Your task to perform on an android device: turn off sleep mode Image 0: 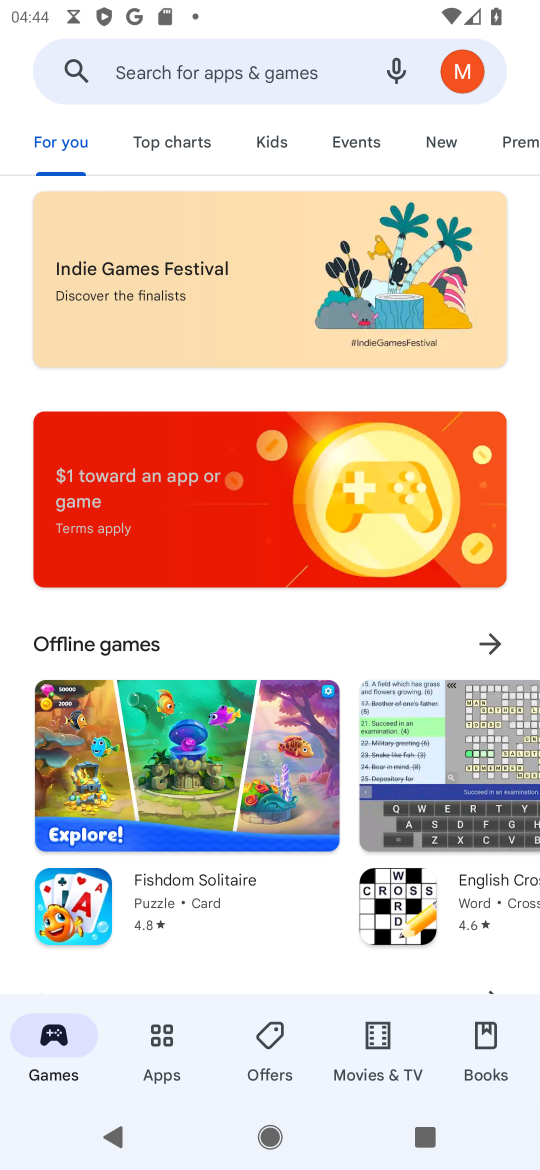
Step 0: press home button
Your task to perform on an android device: turn off sleep mode Image 1: 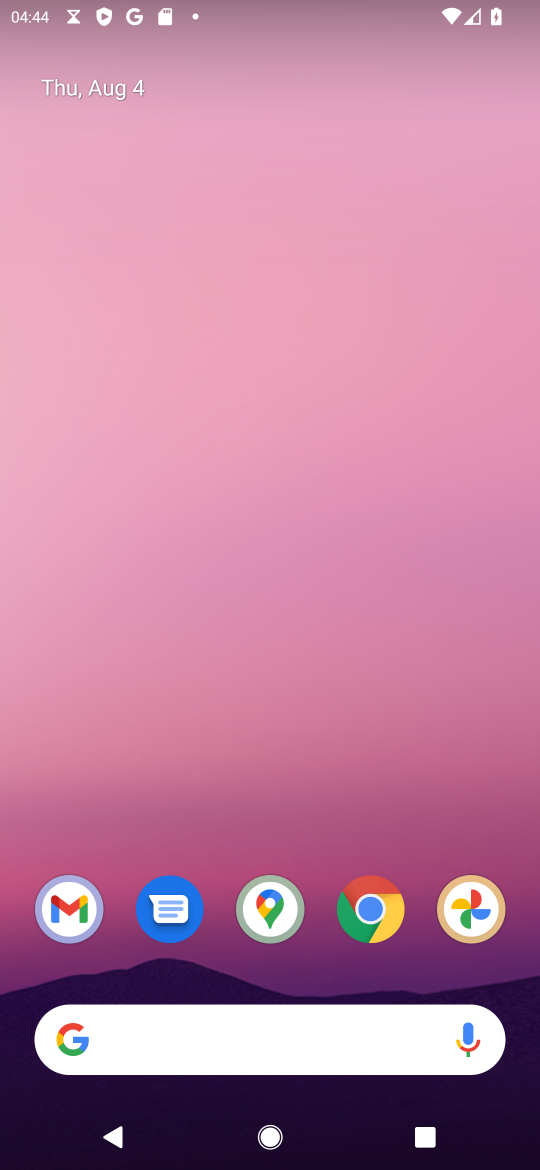
Step 1: drag from (159, 1035) to (530, 79)
Your task to perform on an android device: turn off sleep mode Image 2: 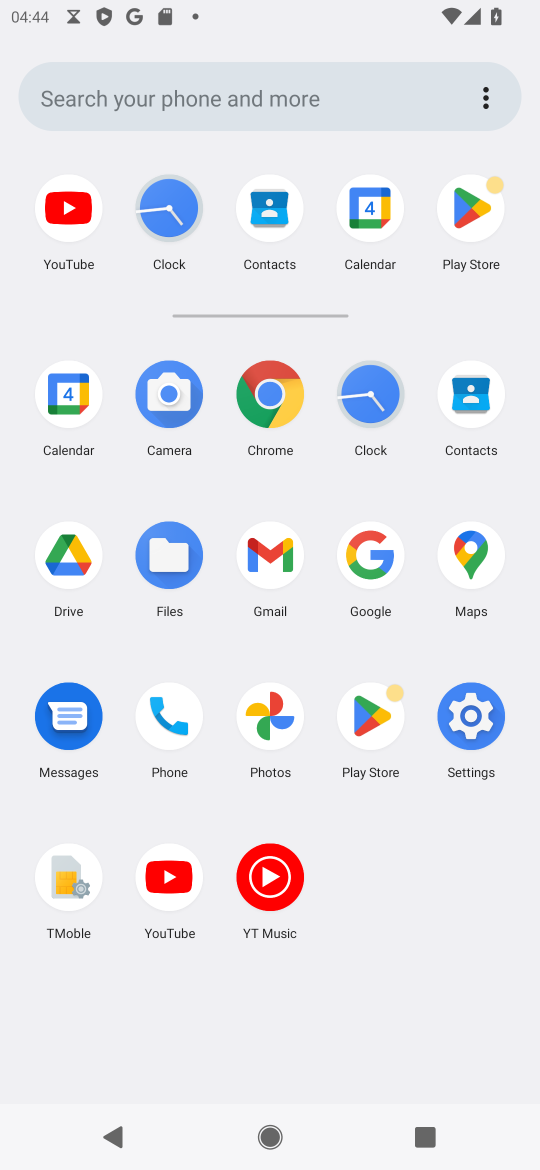
Step 2: click (484, 695)
Your task to perform on an android device: turn off sleep mode Image 3: 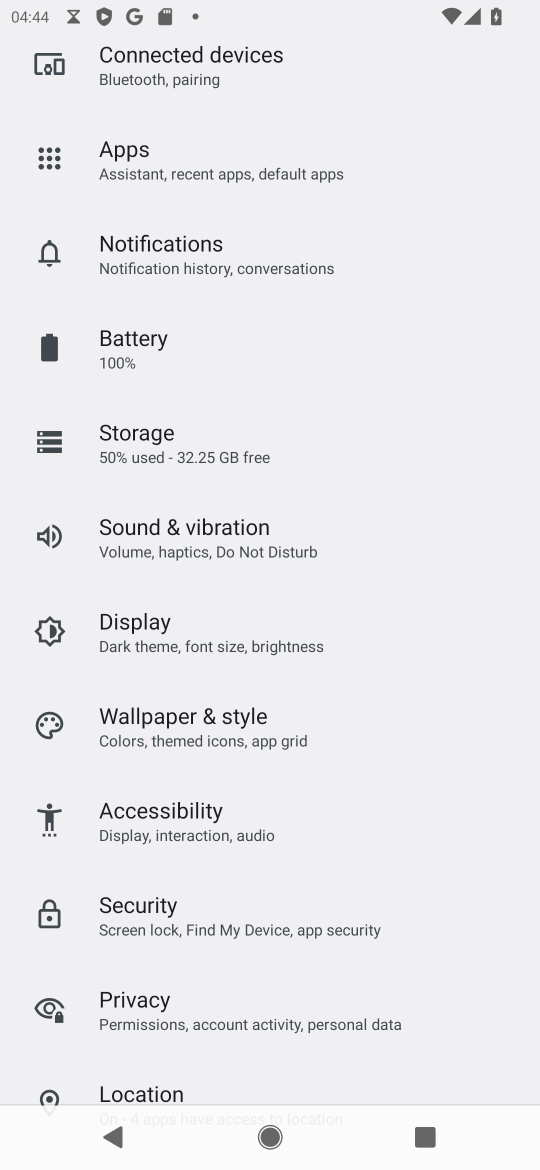
Step 3: click (248, 639)
Your task to perform on an android device: turn off sleep mode Image 4: 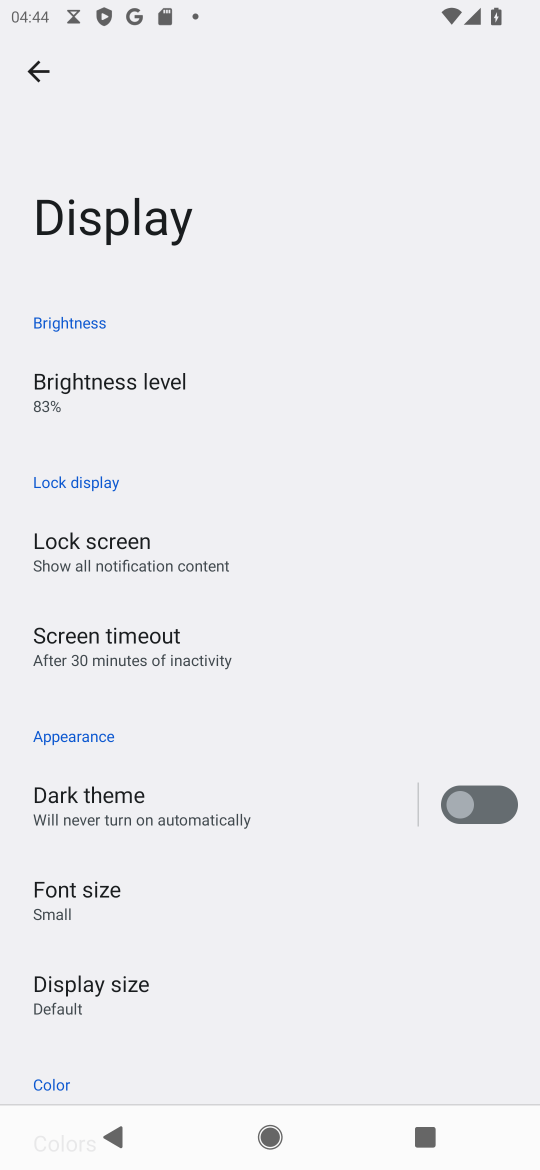
Step 4: task complete